Your task to perform on an android device: Open ESPN.com Image 0: 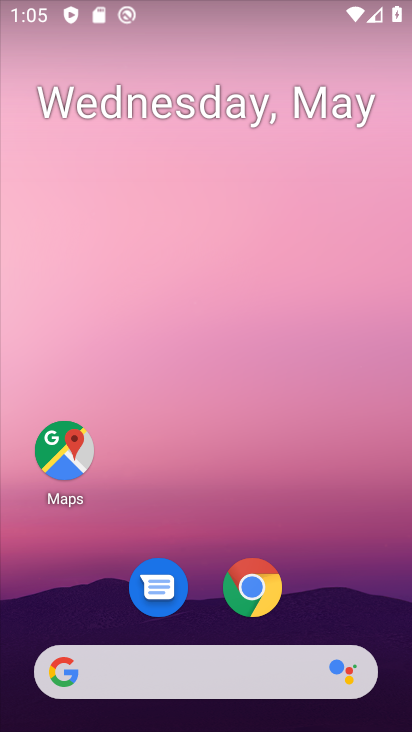
Step 0: click (253, 592)
Your task to perform on an android device: Open ESPN.com Image 1: 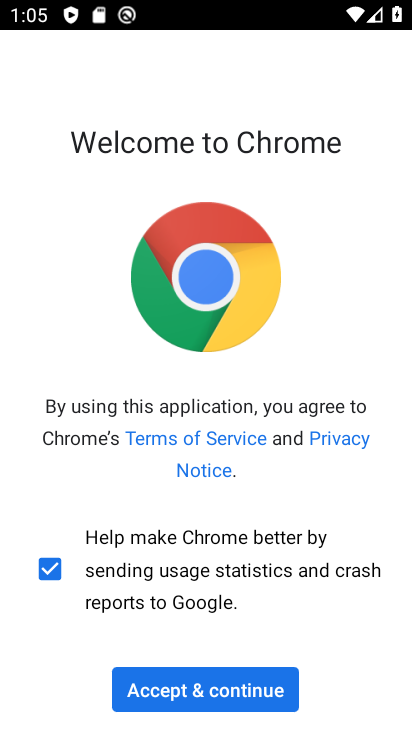
Step 1: click (279, 688)
Your task to perform on an android device: Open ESPN.com Image 2: 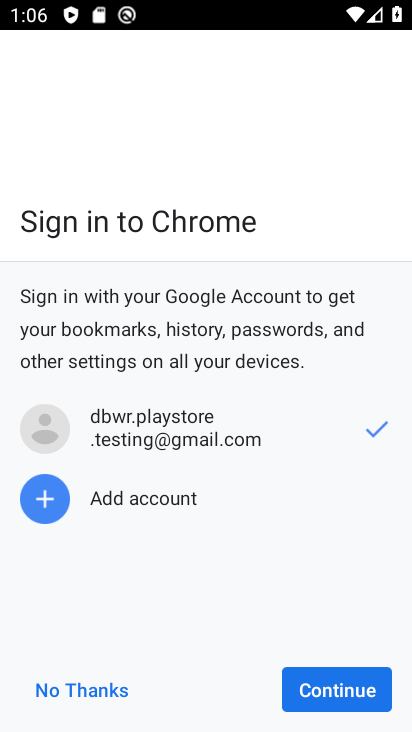
Step 2: click (332, 678)
Your task to perform on an android device: Open ESPN.com Image 3: 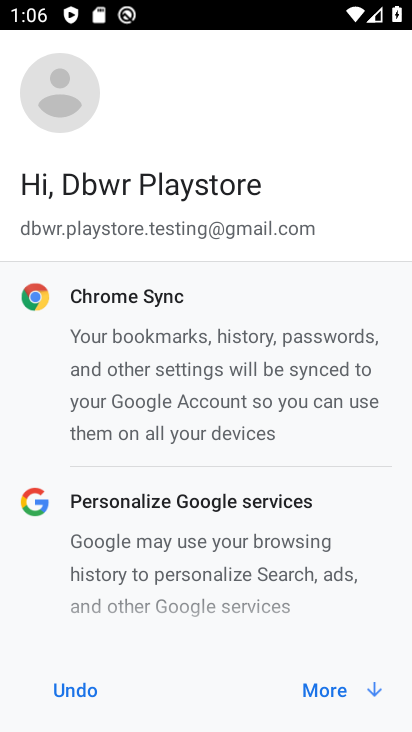
Step 3: click (330, 712)
Your task to perform on an android device: Open ESPN.com Image 4: 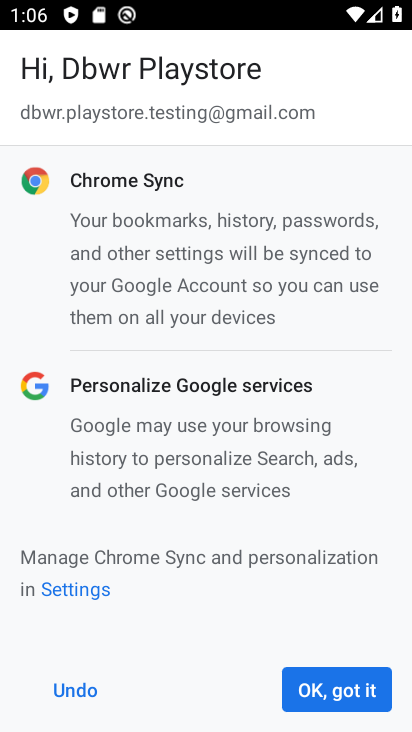
Step 4: click (330, 712)
Your task to perform on an android device: Open ESPN.com Image 5: 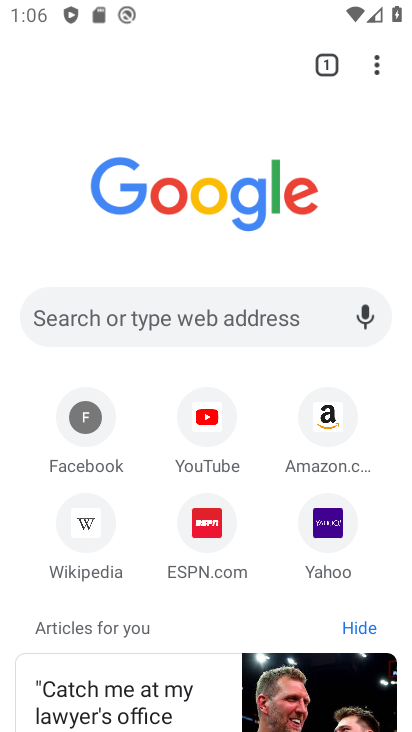
Step 5: click (223, 521)
Your task to perform on an android device: Open ESPN.com Image 6: 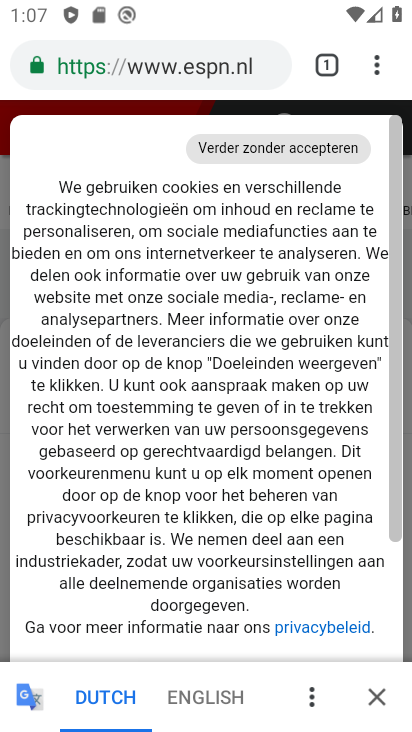
Step 6: task complete